Your task to perform on an android device: Open calendar and show me the first week of next month Image 0: 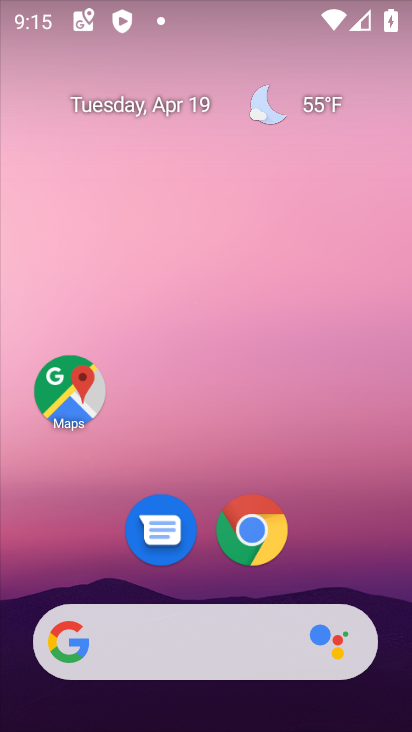
Step 0: drag from (365, 528) to (346, 155)
Your task to perform on an android device: Open calendar and show me the first week of next month Image 1: 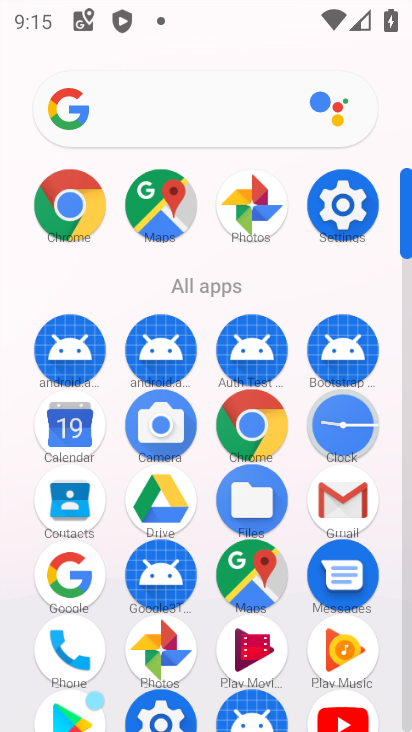
Step 1: click (57, 432)
Your task to perform on an android device: Open calendar and show me the first week of next month Image 2: 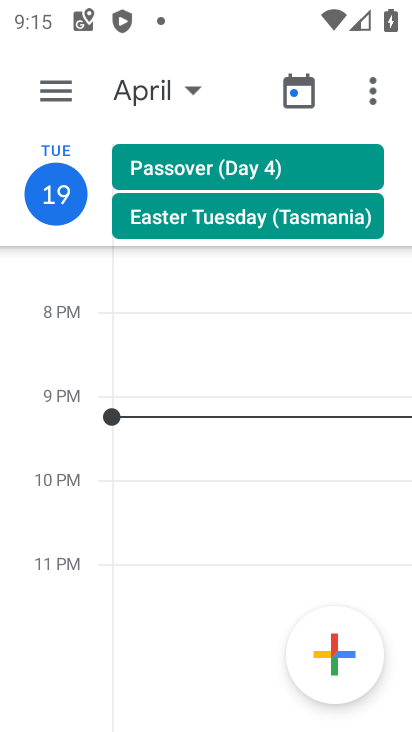
Step 2: click (189, 88)
Your task to perform on an android device: Open calendar and show me the first week of next month Image 3: 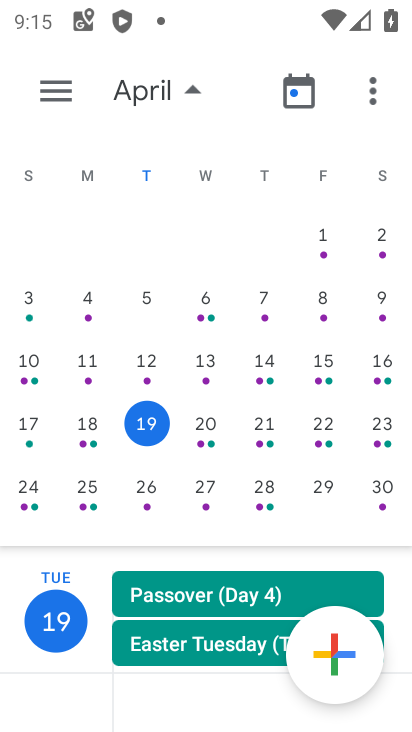
Step 3: drag from (383, 527) to (0, 519)
Your task to perform on an android device: Open calendar and show me the first week of next month Image 4: 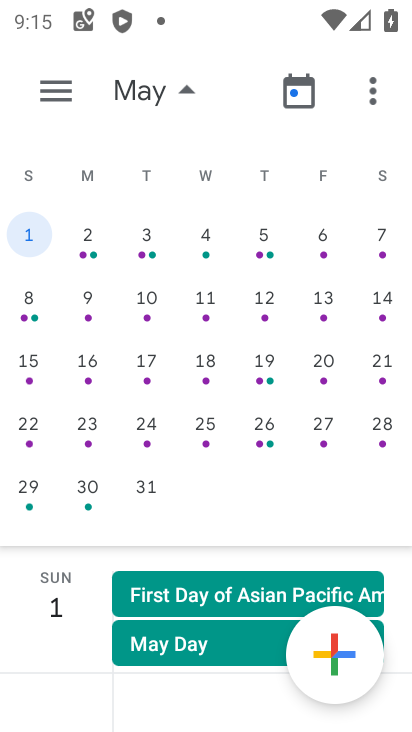
Step 4: click (204, 238)
Your task to perform on an android device: Open calendar and show me the first week of next month Image 5: 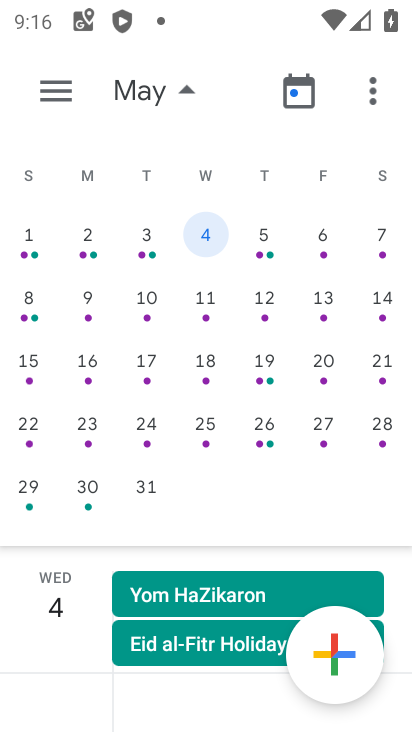
Step 5: task complete